Your task to perform on an android device: open app "NewsBreak: Local News & Alerts" (install if not already installed), go to login, and select forgot password Image 0: 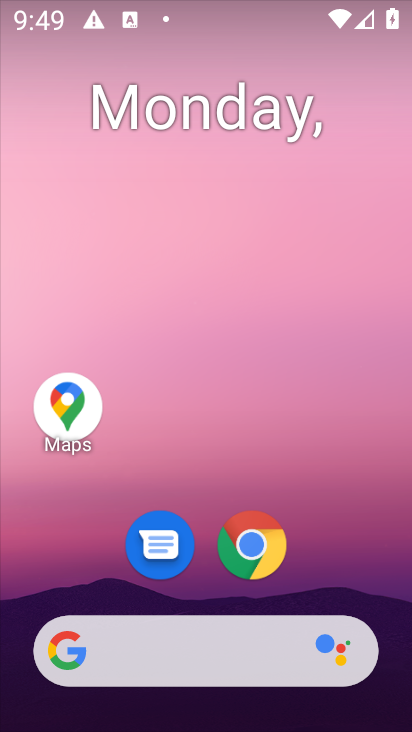
Step 0: press home button
Your task to perform on an android device: open app "NewsBreak: Local News & Alerts" (install if not already installed), go to login, and select forgot password Image 1: 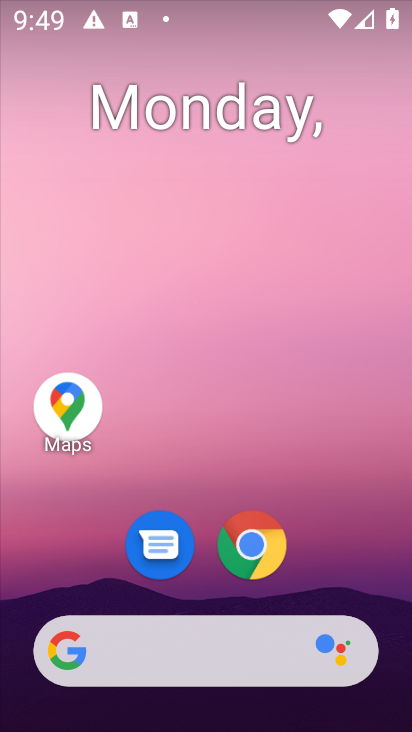
Step 1: drag from (377, 600) to (388, 108)
Your task to perform on an android device: open app "NewsBreak: Local News & Alerts" (install if not already installed), go to login, and select forgot password Image 2: 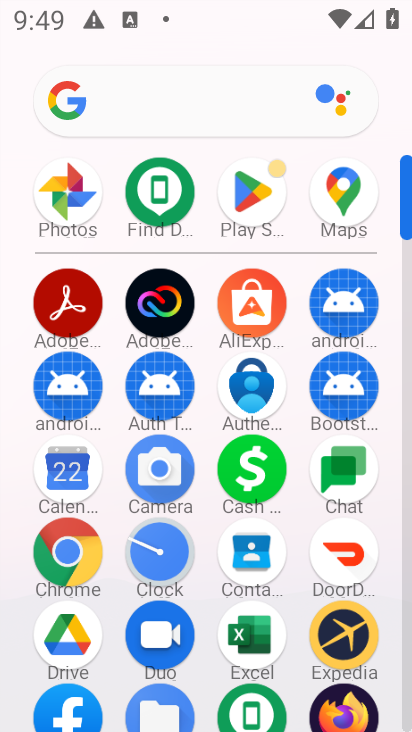
Step 2: click (256, 195)
Your task to perform on an android device: open app "NewsBreak: Local News & Alerts" (install if not already installed), go to login, and select forgot password Image 3: 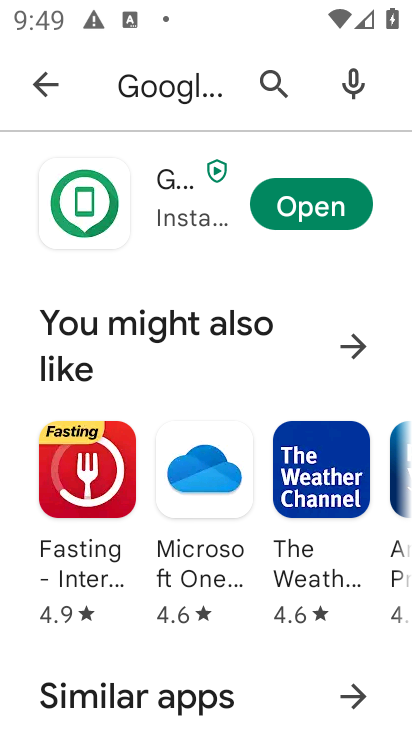
Step 3: press back button
Your task to perform on an android device: open app "NewsBreak: Local News & Alerts" (install if not already installed), go to login, and select forgot password Image 4: 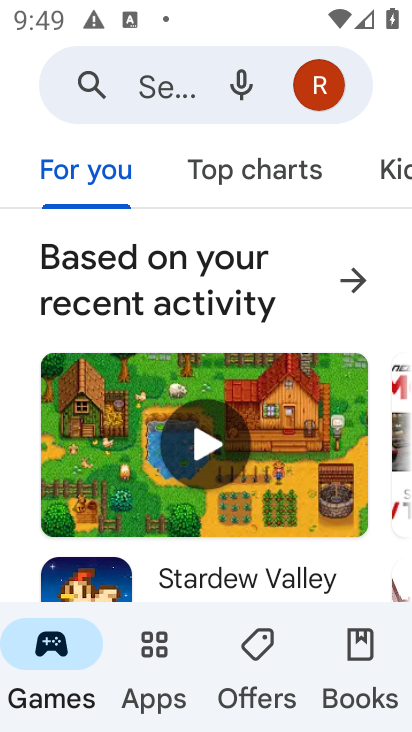
Step 4: click (154, 80)
Your task to perform on an android device: open app "NewsBreak: Local News & Alerts" (install if not already installed), go to login, and select forgot password Image 5: 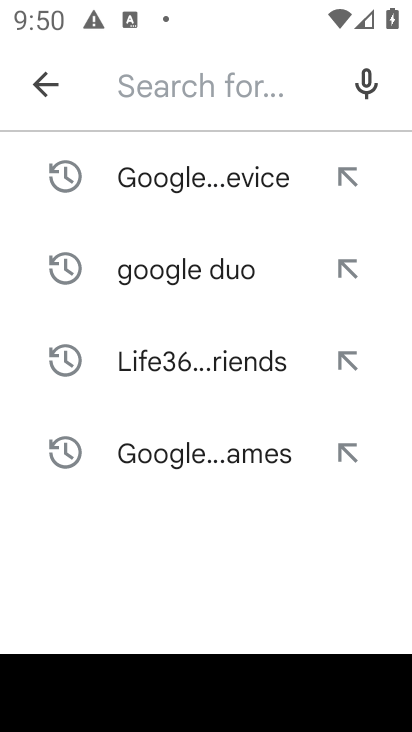
Step 5: type "NewsBreak: Local News & Alerts"
Your task to perform on an android device: open app "NewsBreak: Local News & Alerts" (install if not already installed), go to login, and select forgot password Image 6: 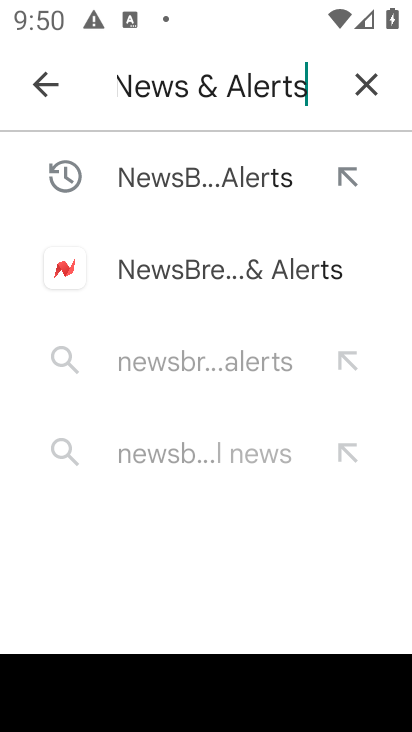
Step 6: press enter
Your task to perform on an android device: open app "NewsBreak: Local News & Alerts" (install if not already installed), go to login, and select forgot password Image 7: 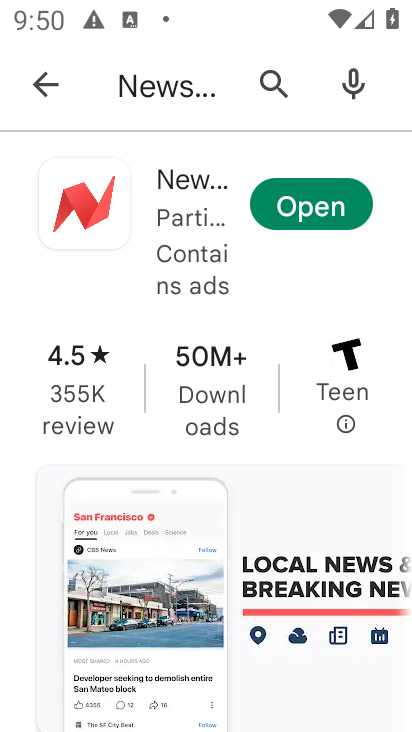
Step 7: click (334, 212)
Your task to perform on an android device: open app "NewsBreak: Local News & Alerts" (install if not already installed), go to login, and select forgot password Image 8: 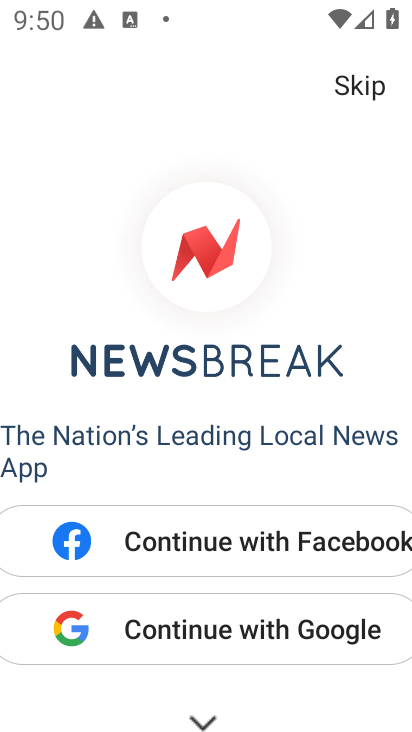
Step 8: click (199, 713)
Your task to perform on an android device: open app "NewsBreak: Local News & Alerts" (install if not already installed), go to login, and select forgot password Image 9: 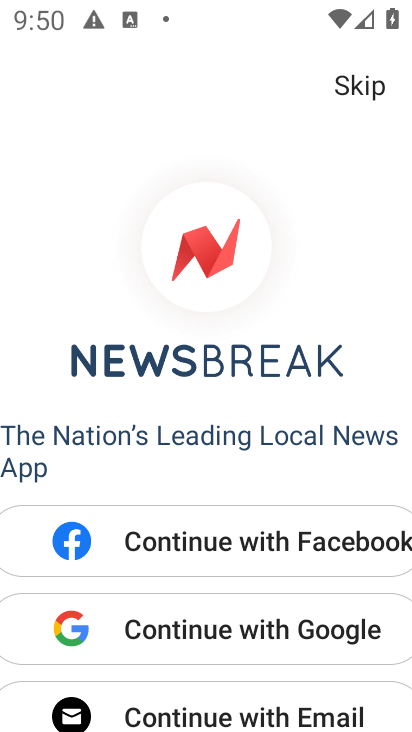
Step 9: drag from (226, 679) to (228, 279)
Your task to perform on an android device: open app "NewsBreak: Local News & Alerts" (install if not already installed), go to login, and select forgot password Image 10: 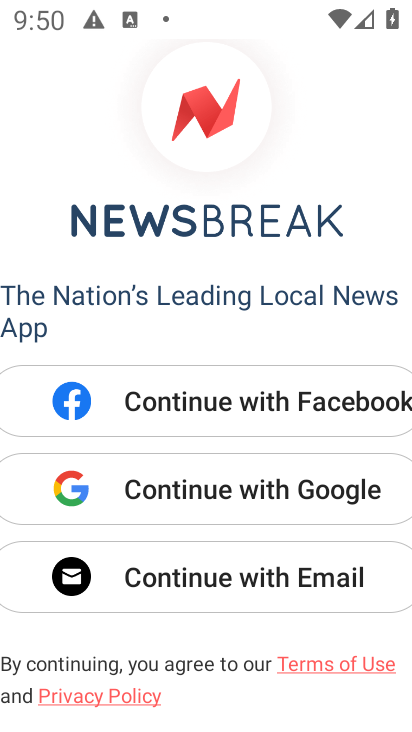
Step 10: click (247, 587)
Your task to perform on an android device: open app "NewsBreak: Local News & Alerts" (install if not already installed), go to login, and select forgot password Image 11: 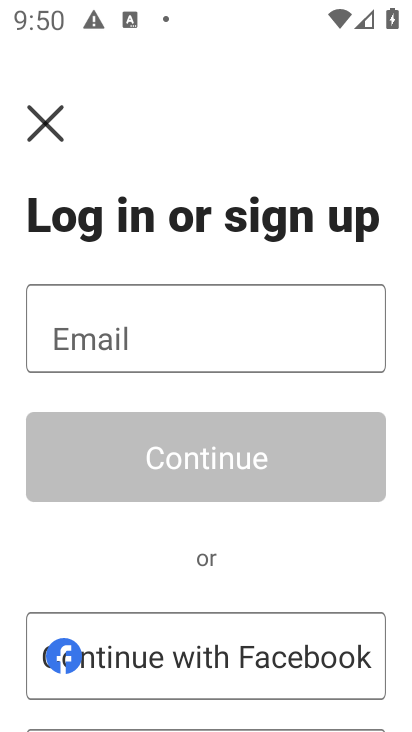
Step 11: task complete